Your task to perform on an android device: Turn on the flashlight Image 0: 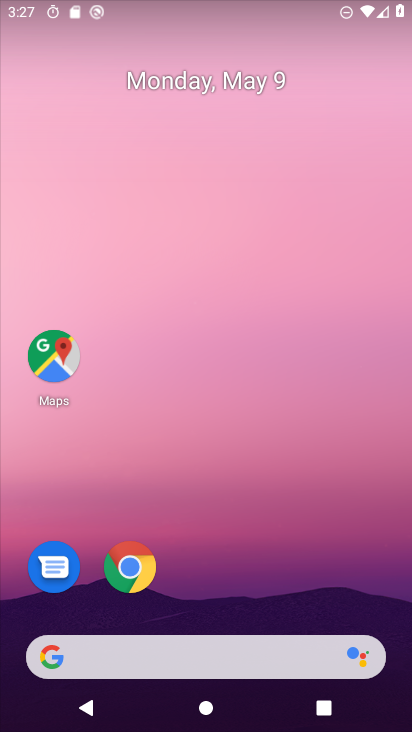
Step 0: drag from (246, 605) to (193, 24)
Your task to perform on an android device: Turn on the flashlight Image 1: 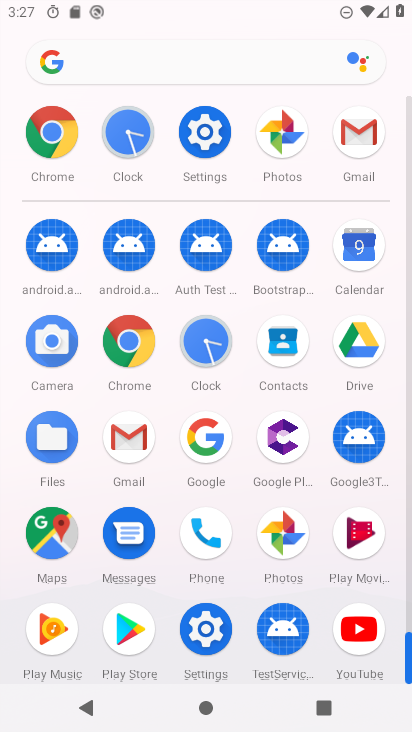
Step 1: click (207, 143)
Your task to perform on an android device: Turn on the flashlight Image 2: 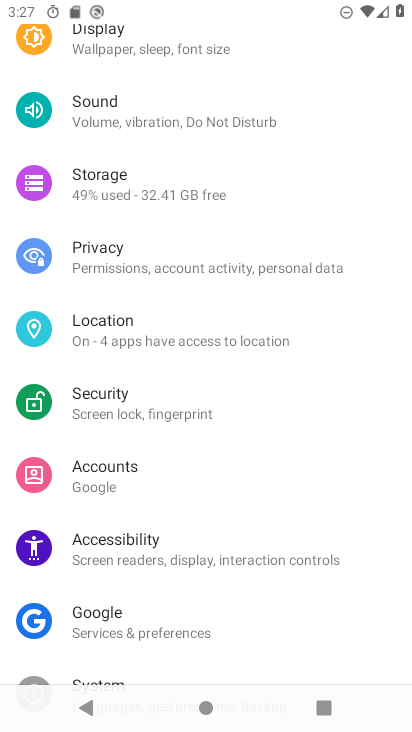
Step 2: click (249, 550)
Your task to perform on an android device: Turn on the flashlight Image 3: 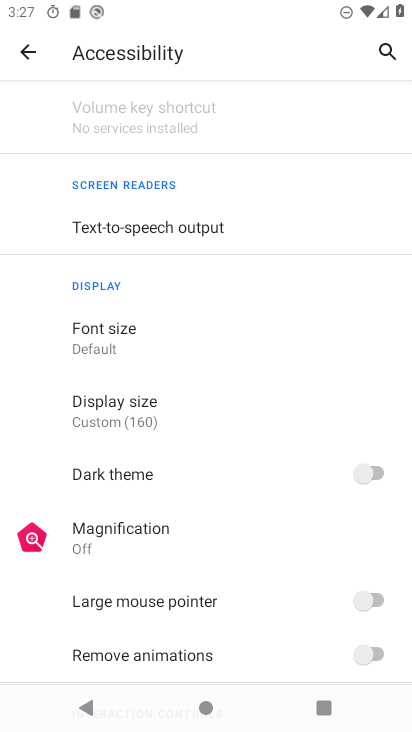
Step 3: task complete